Your task to perform on an android device: toggle wifi Image 0: 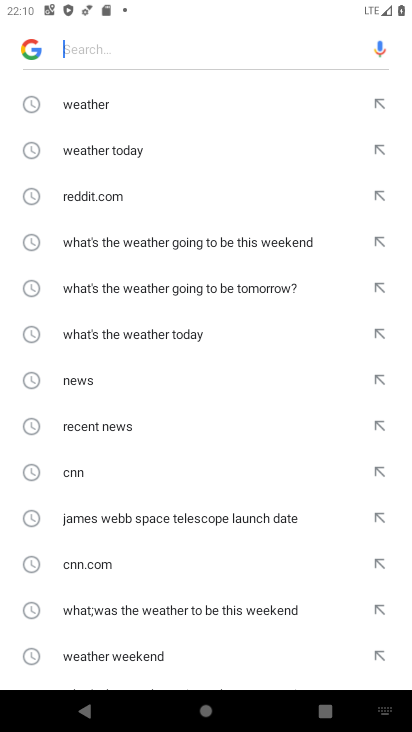
Step 0: press back button
Your task to perform on an android device: toggle wifi Image 1: 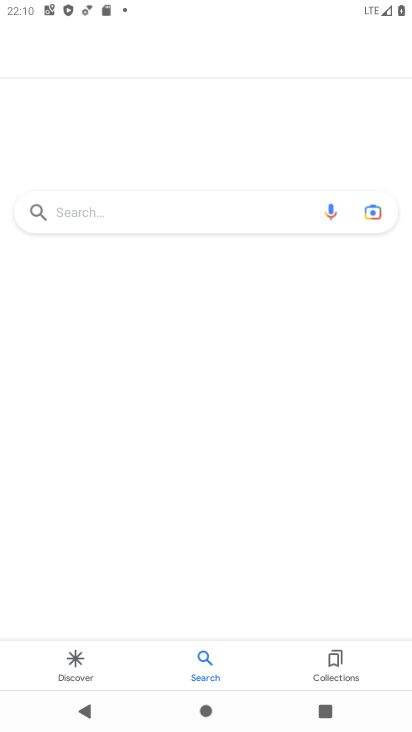
Step 1: press back button
Your task to perform on an android device: toggle wifi Image 2: 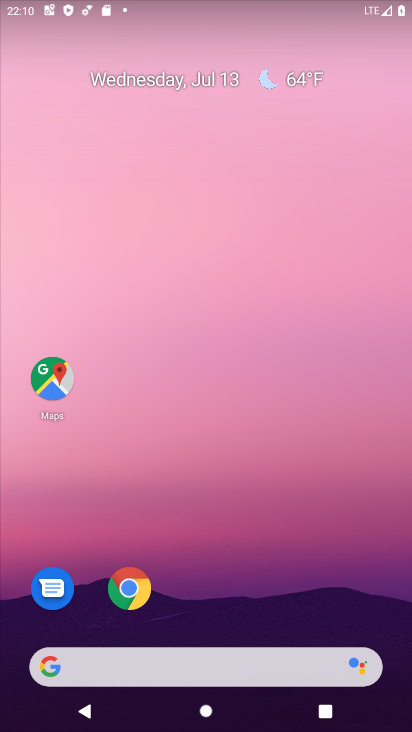
Step 2: drag from (96, 5) to (138, 445)
Your task to perform on an android device: toggle wifi Image 3: 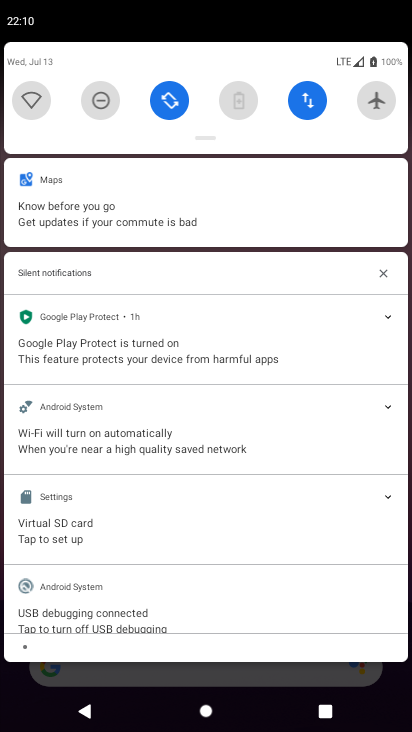
Step 3: click (31, 105)
Your task to perform on an android device: toggle wifi Image 4: 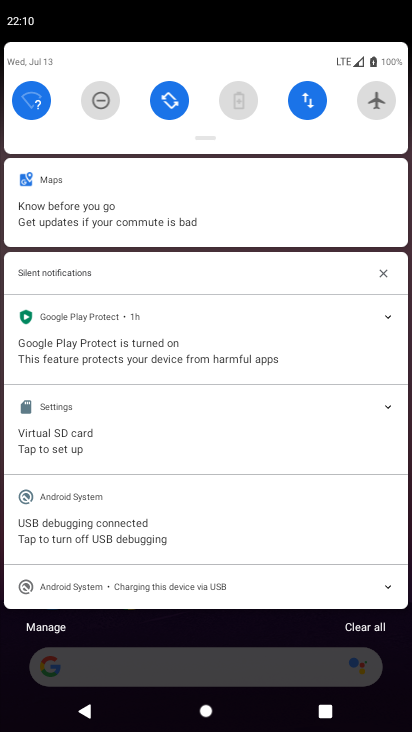
Step 4: task complete